Your task to perform on an android device: What is the recent news? Image 0: 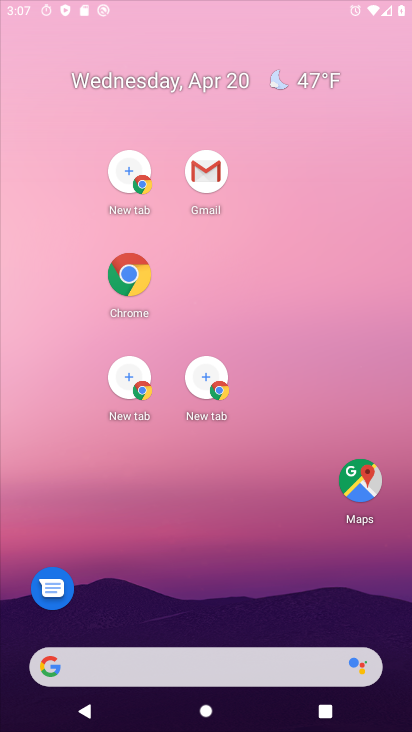
Step 0: click (0, 0)
Your task to perform on an android device: What is the recent news? Image 1: 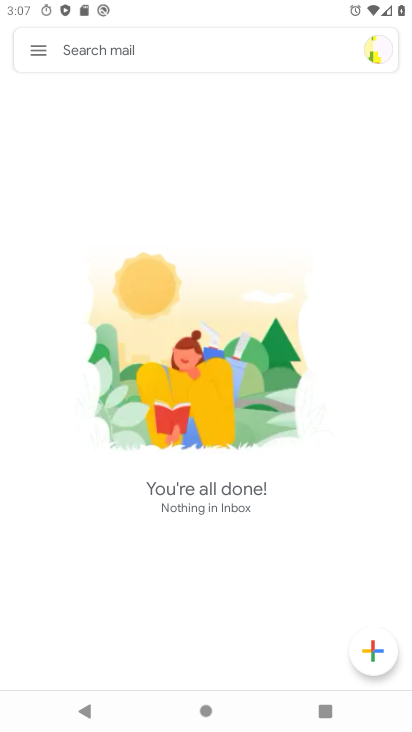
Step 1: press home button
Your task to perform on an android device: What is the recent news? Image 2: 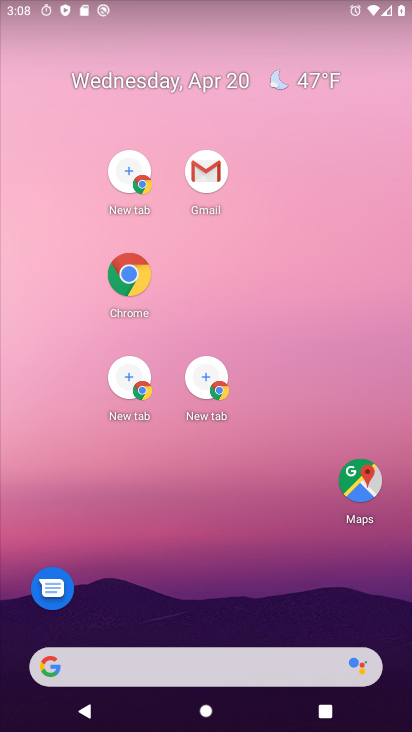
Step 2: click (135, 269)
Your task to perform on an android device: What is the recent news? Image 3: 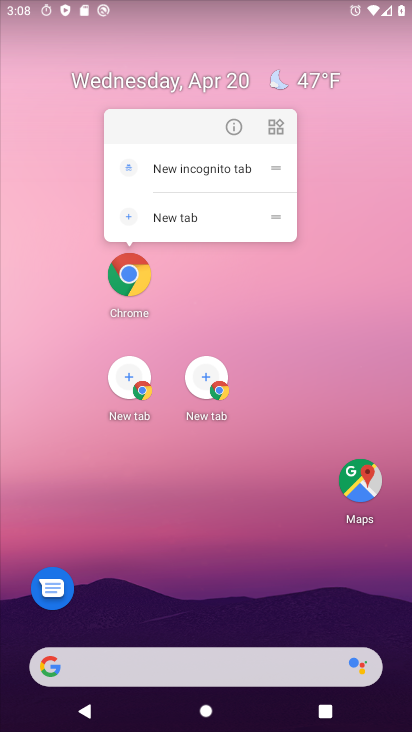
Step 3: click (174, 198)
Your task to perform on an android device: What is the recent news? Image 4: 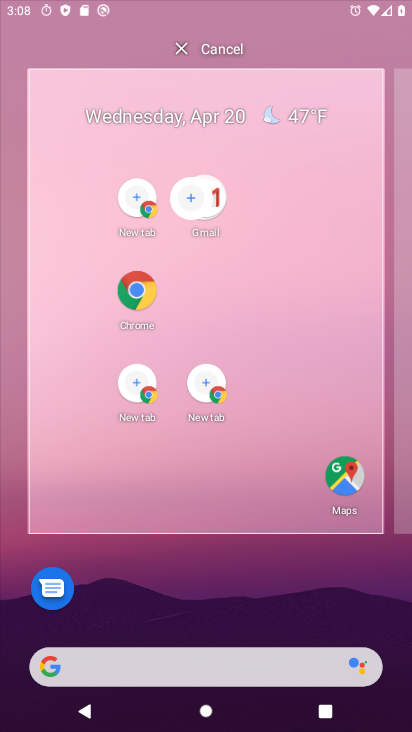
Step 4: click (190, 221)
Your task to perform on an android device: What is the recent news? Image 5: 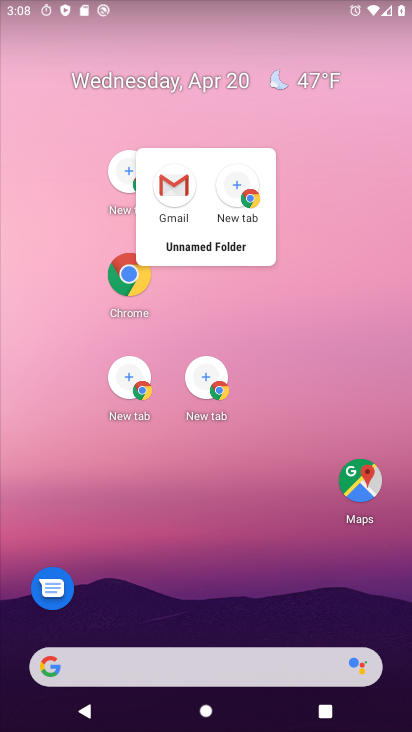
Step 5: click (125, 278)
Your task to perform on an android device: What is the recent news? Image 6: 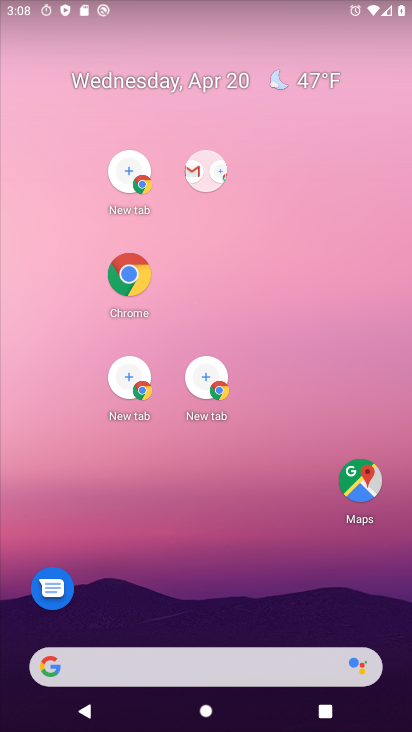
Step 6: click (117, 281)
Your task to perform on an android device: What is the recent news? Image 7: 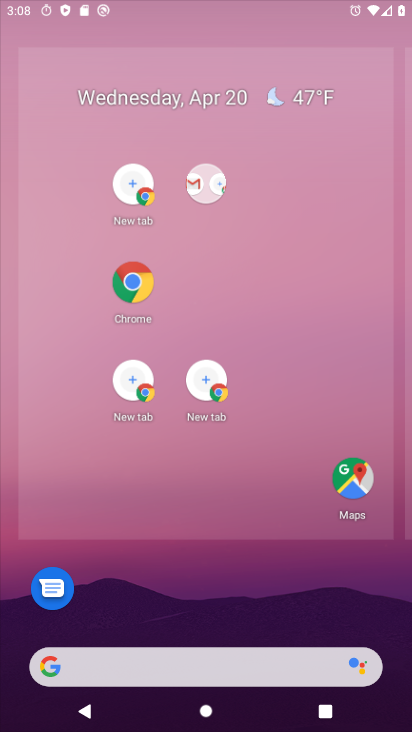
Step 7: click (8, 78)
Your task to perform on an android device: What is the recent news? Image 8: 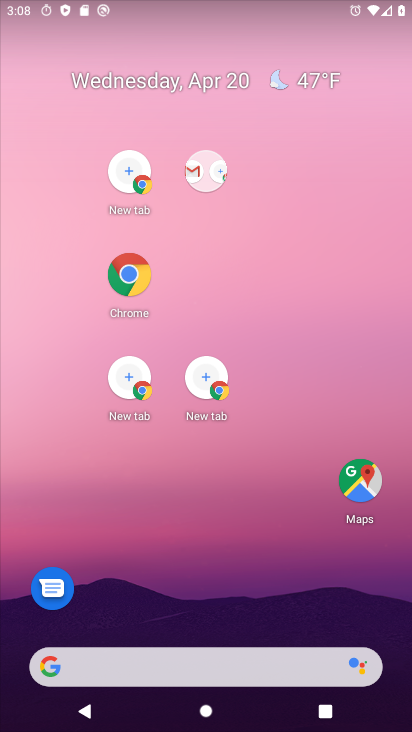
Step 8: click (114, 37)
Your task to perform on an android device: What is the recent news? Image 9: 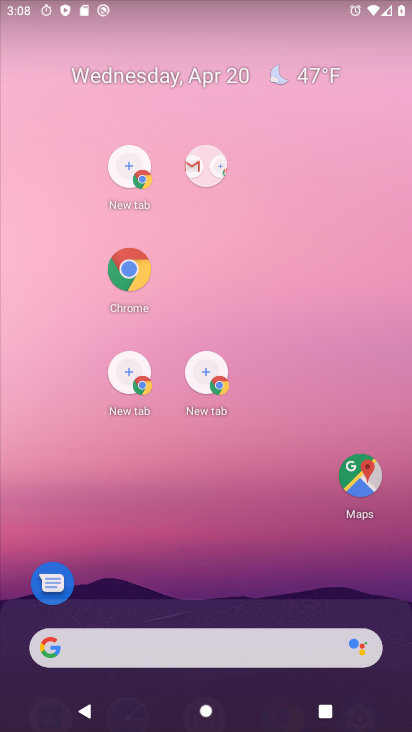
Step 9: drag from (322, 330) to (342, 273)
Your task to perform on an android device: What is the recent news? Image 10: 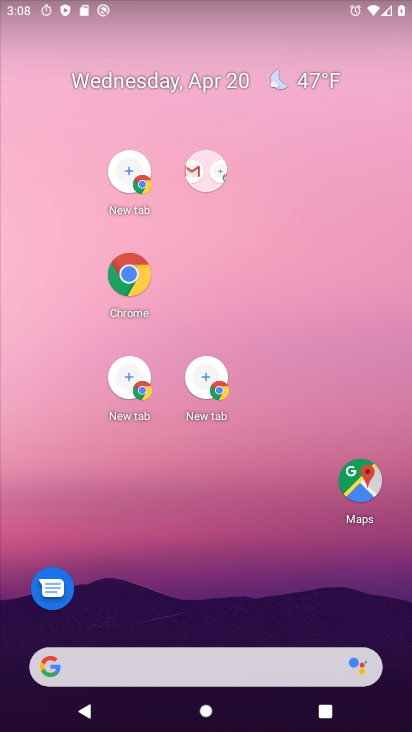
Step 10: click (128, 278)
Your task to perform on an android device: What is the recent news? Image 11: 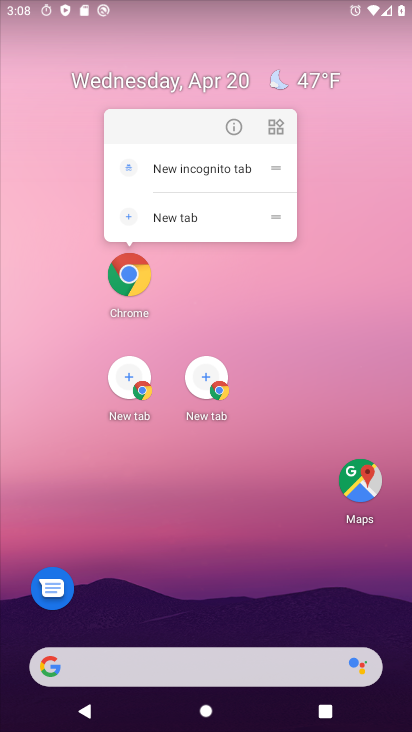
Step 11: click (186, 217)
Your task to perform on an android device: What is the recent news? Image 12: 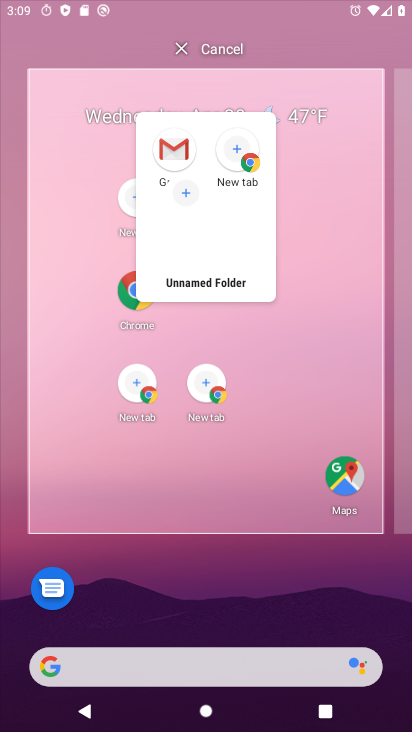
Step 12: click (186, 217)
Your task to perform on an android device: What is the recent news? Image 13: 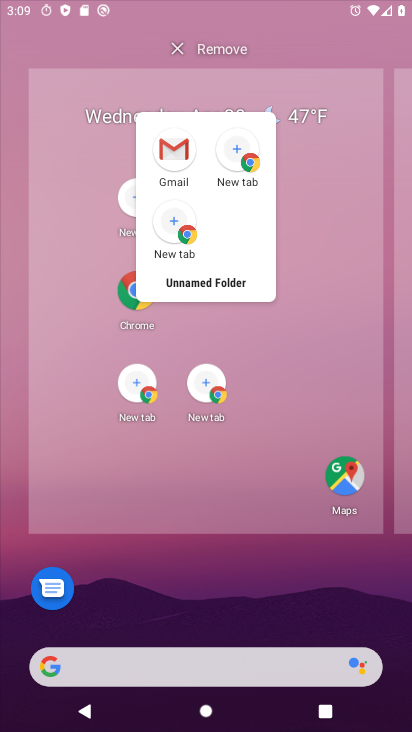
Step 13: click (172, 272)
Your task to perform on an android device: What is the recent news? Image 14: 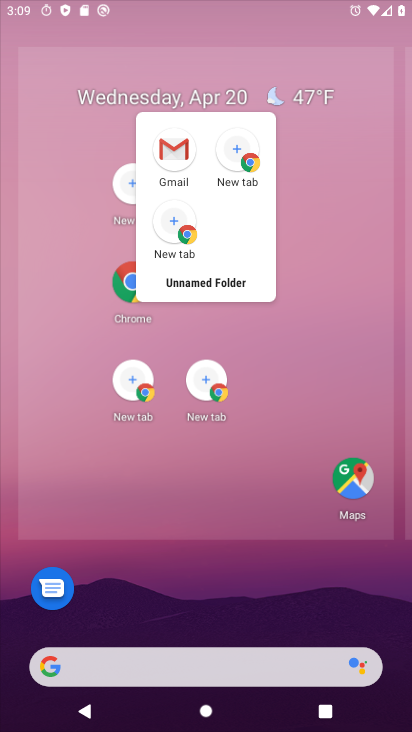
Step 14: click (185, 277)
Your task to perform on an android device: What is the recent news? Image 15: 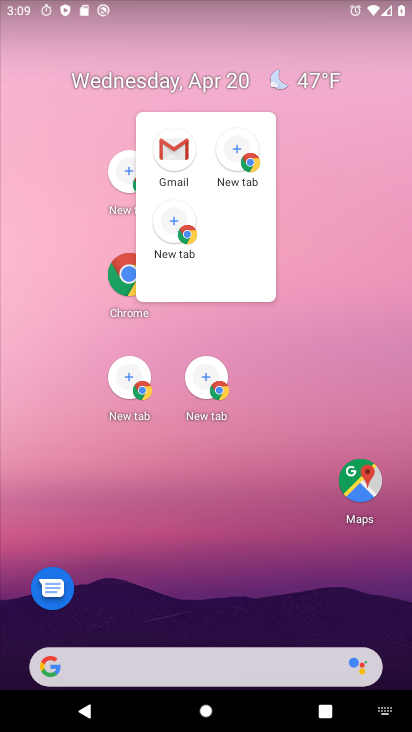
Step 15: click (196, 281)
Your task to perform on an android device: What is the recent news? Image 16: 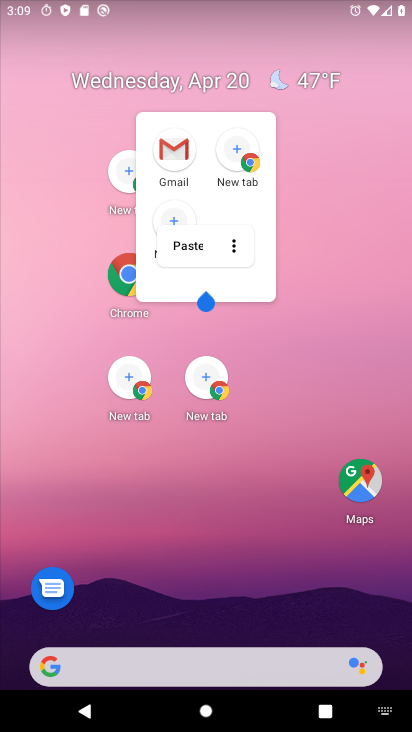
Step 16: task complete